Your task to perform on an android device: When is my next appointment? Image 0: 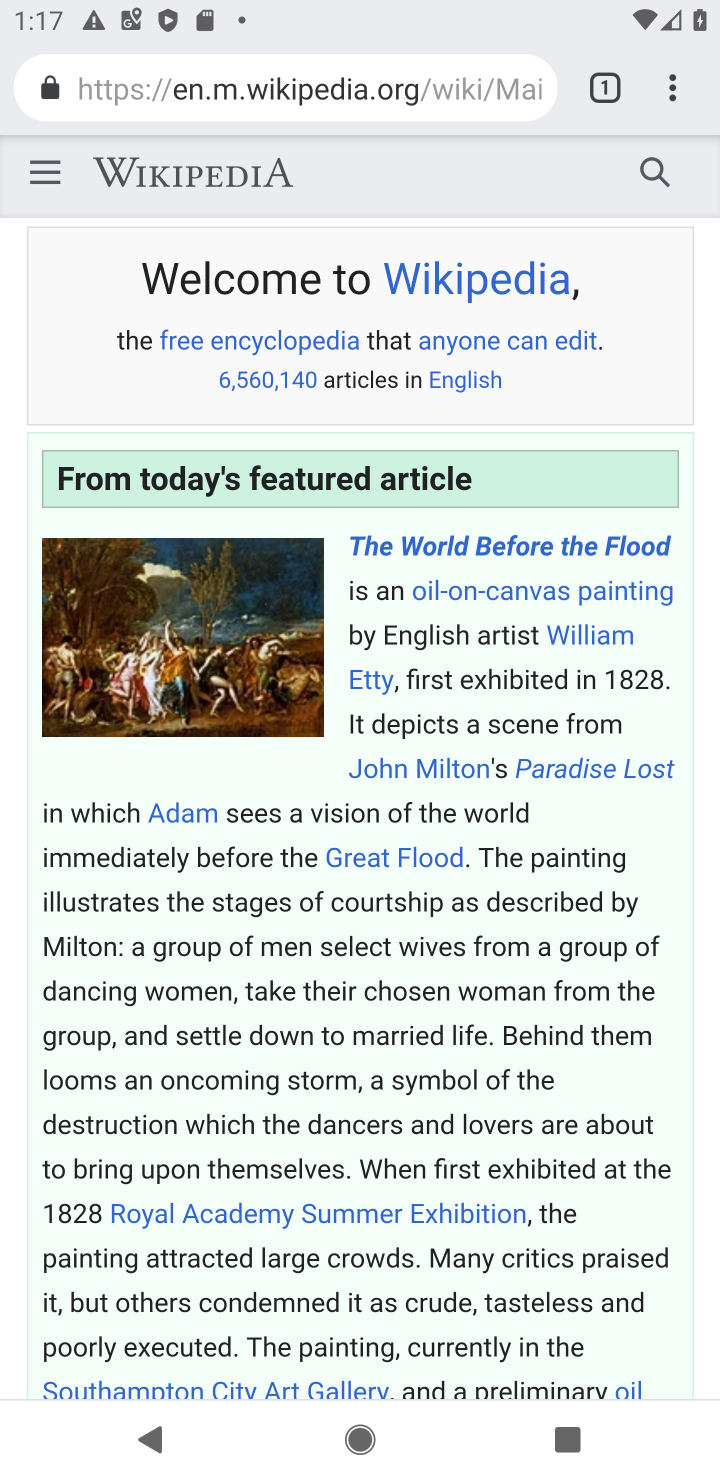
Step 0: press home button
Your task to perform on an android device: When is my next appointment? Image 1: 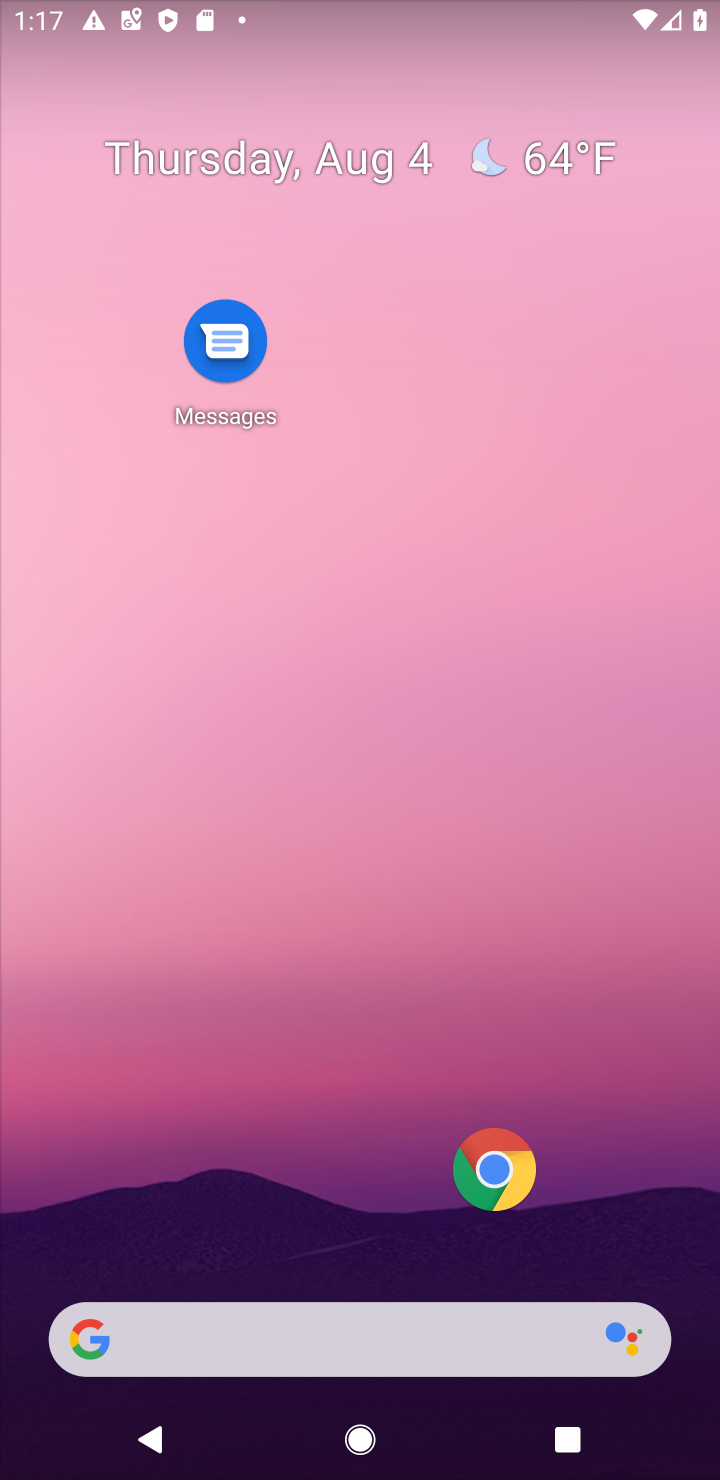
Step 1: drag from (285, 1231) to (258, 191)
Your task to perform on an android device: When is my next appointment? Image 2: 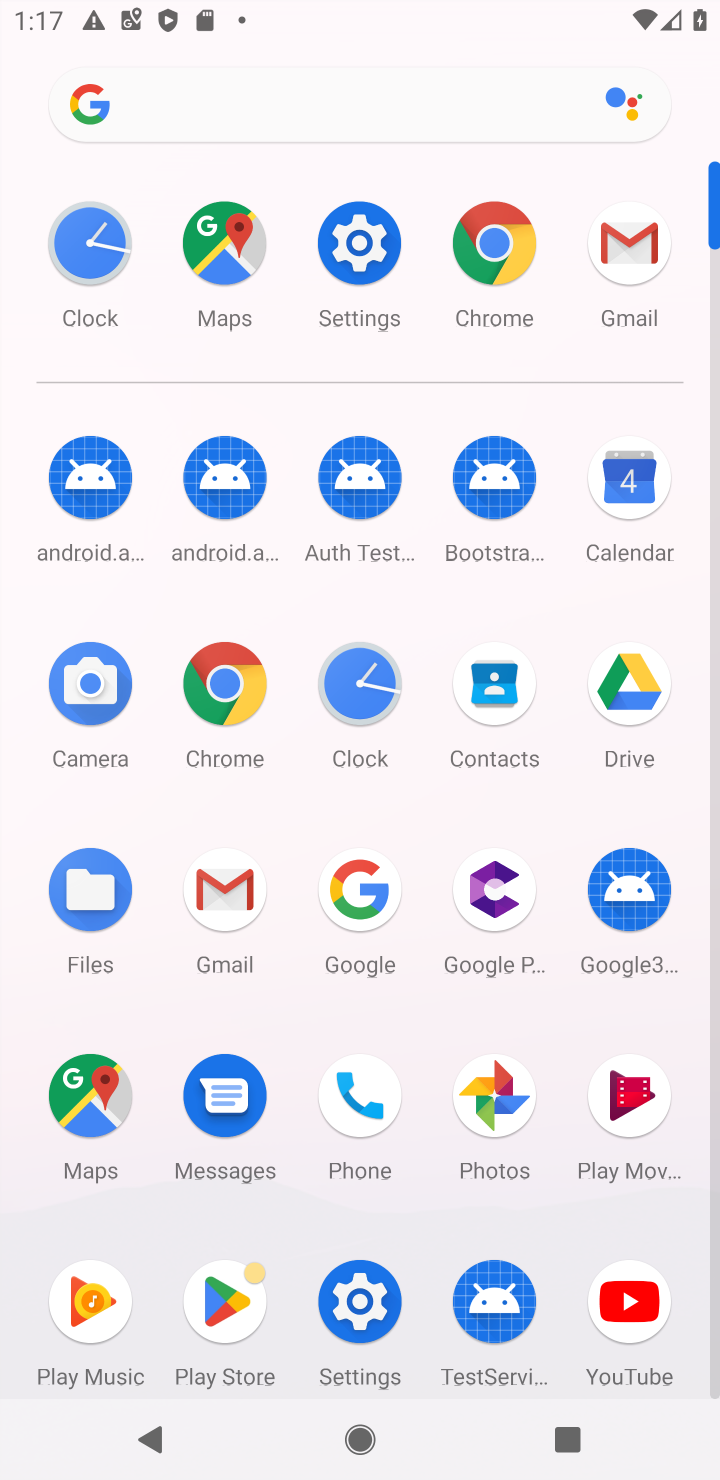
Step 2: click (620, 506)
Your task to perform on an android device: When is my next appointment? Image 3: 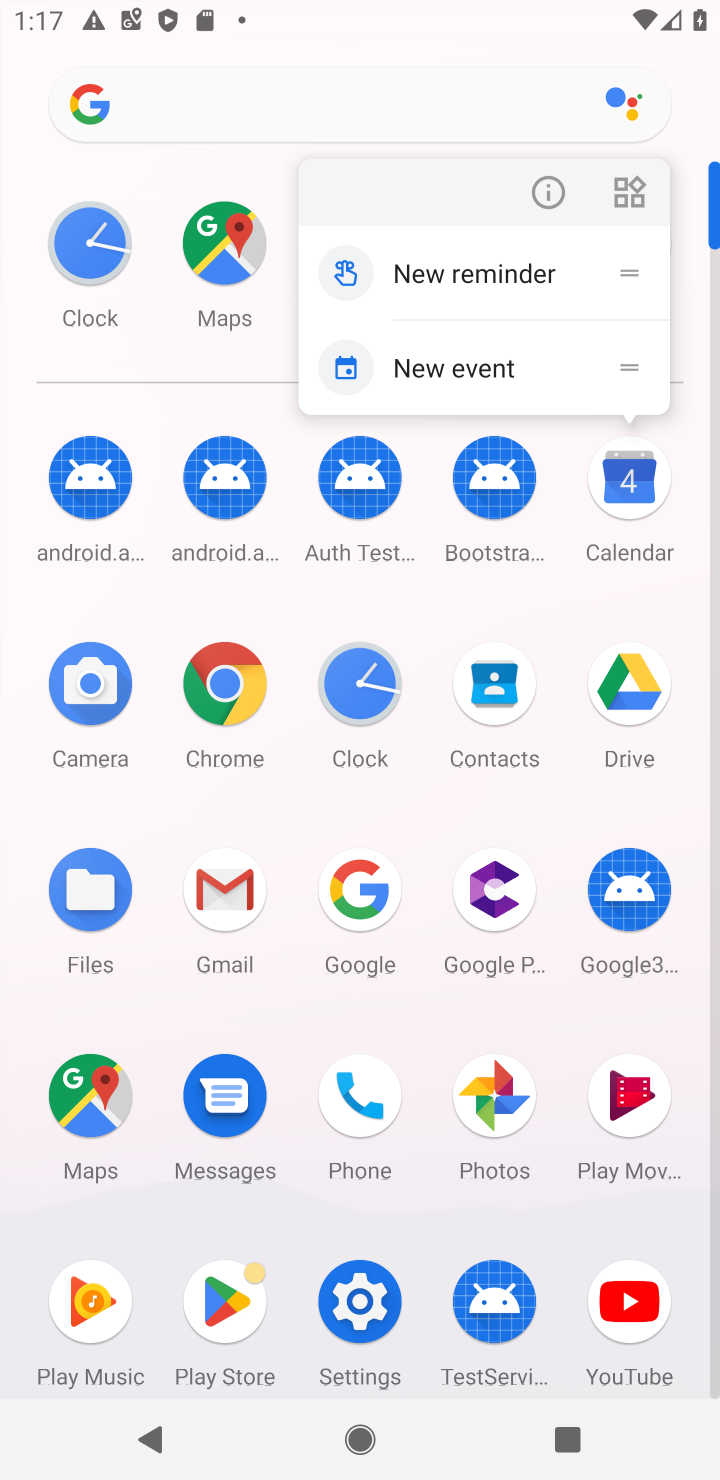
Step 3: click (622, 508)
Your task to perform on an android device: When is my next appointment? Image 4: 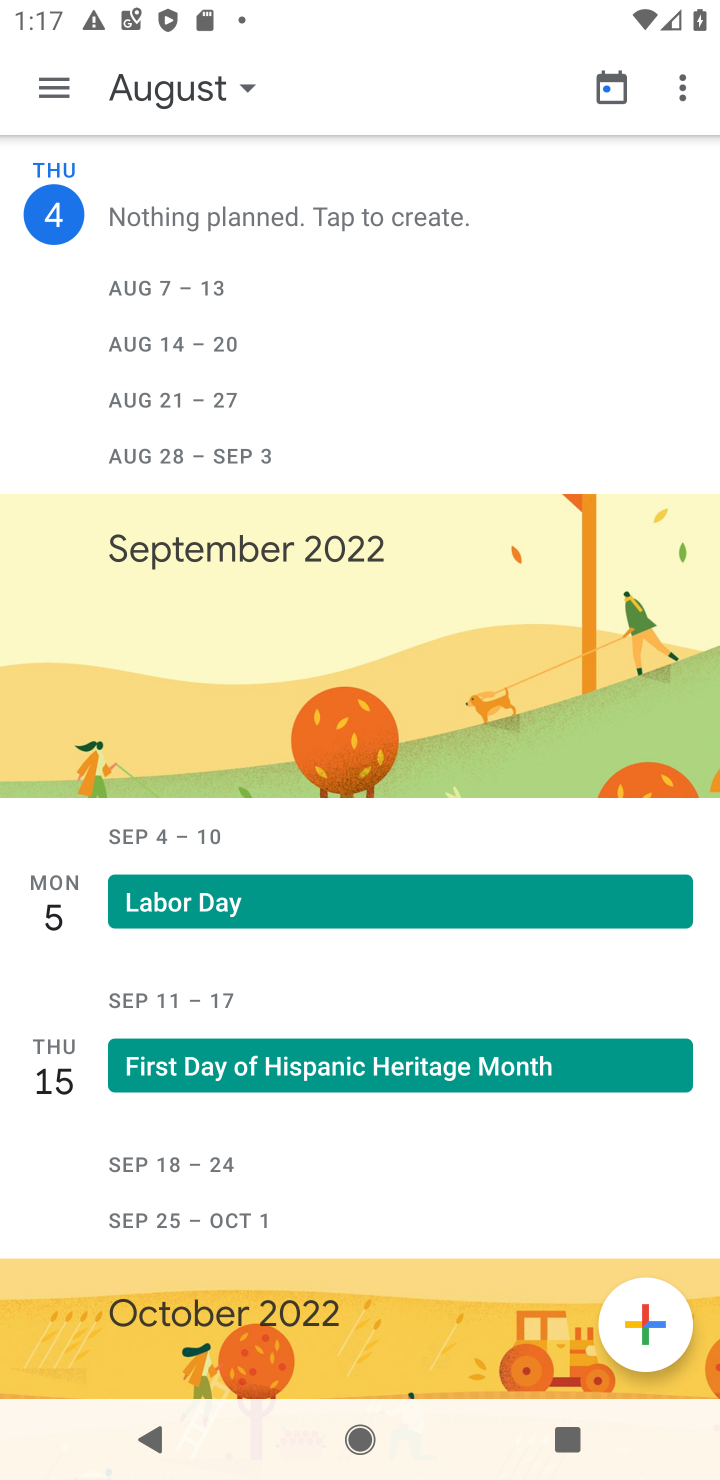
Step 4: click (171, 264)
Your task to perform on an android device: When is my next appointment? Image 5: 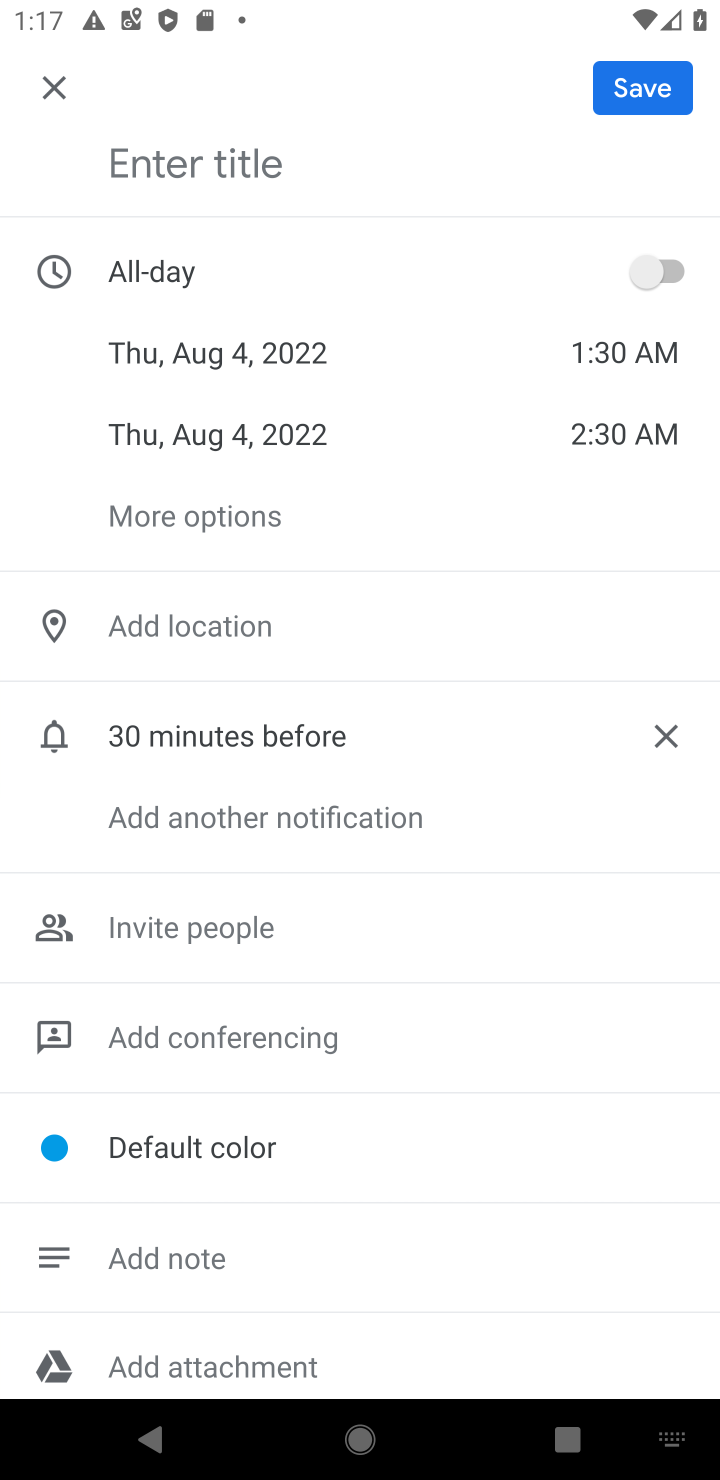
Step 5: task complete